Your task to perform on an android device: add a contact Image 0: 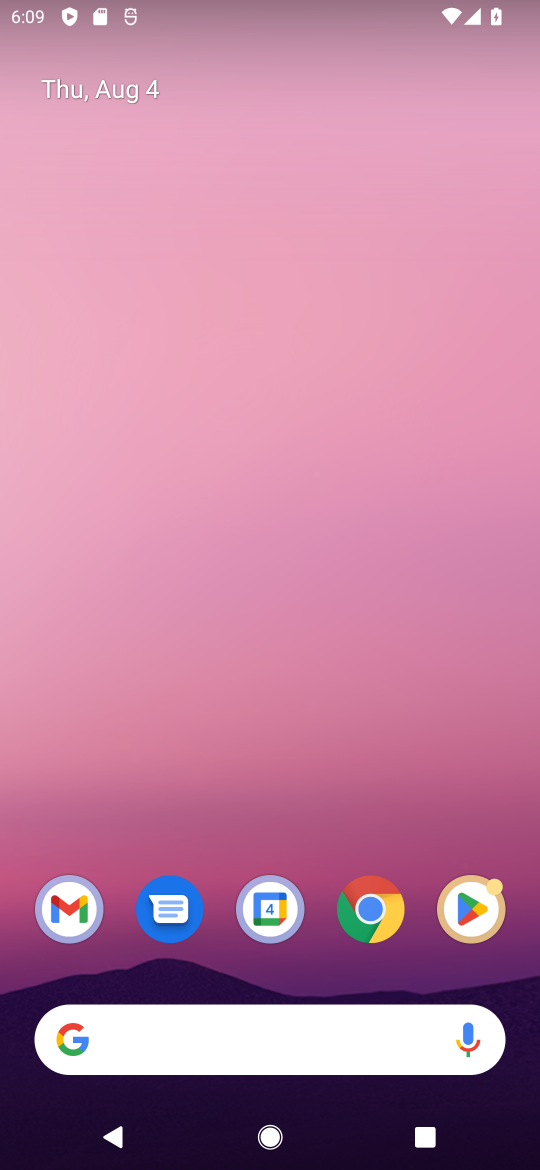
Step 0: drag from (274, 931) to (302, 130)
Your task to perform on an android device: add a contact Image 1: 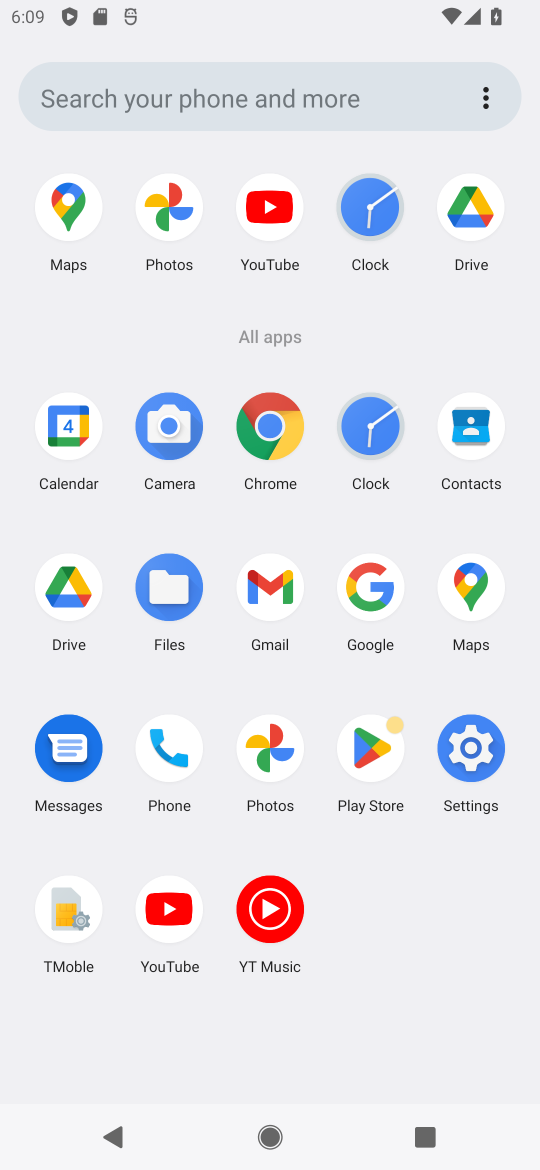
Step 1: click (160, 756)
Your task to perform on an android device: add a contact Image 2: 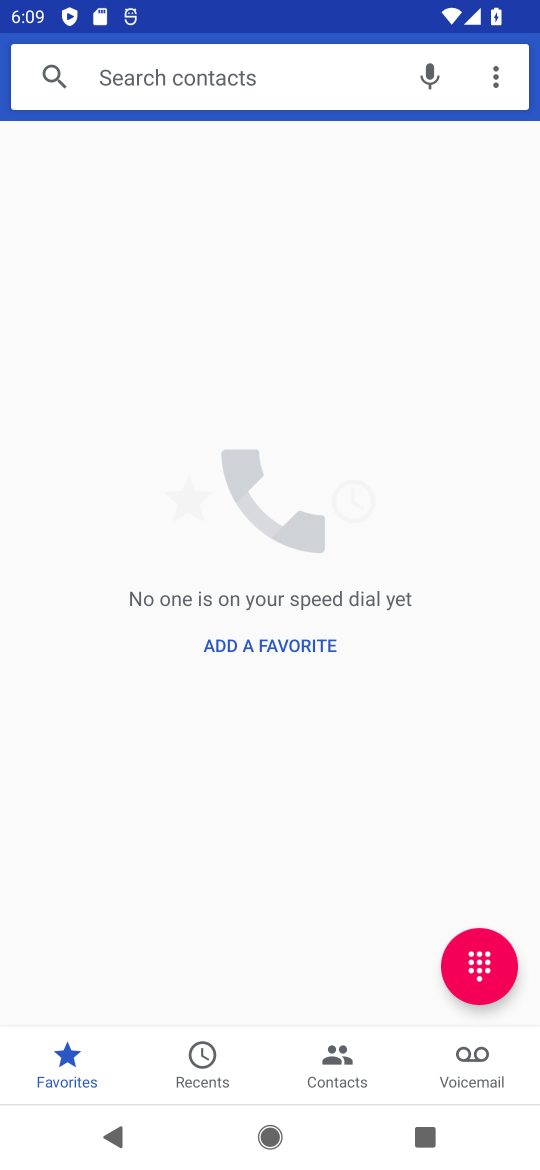
Step 2: click (326, 1063)
Your task to perform on an android device: add a contact Image 3: 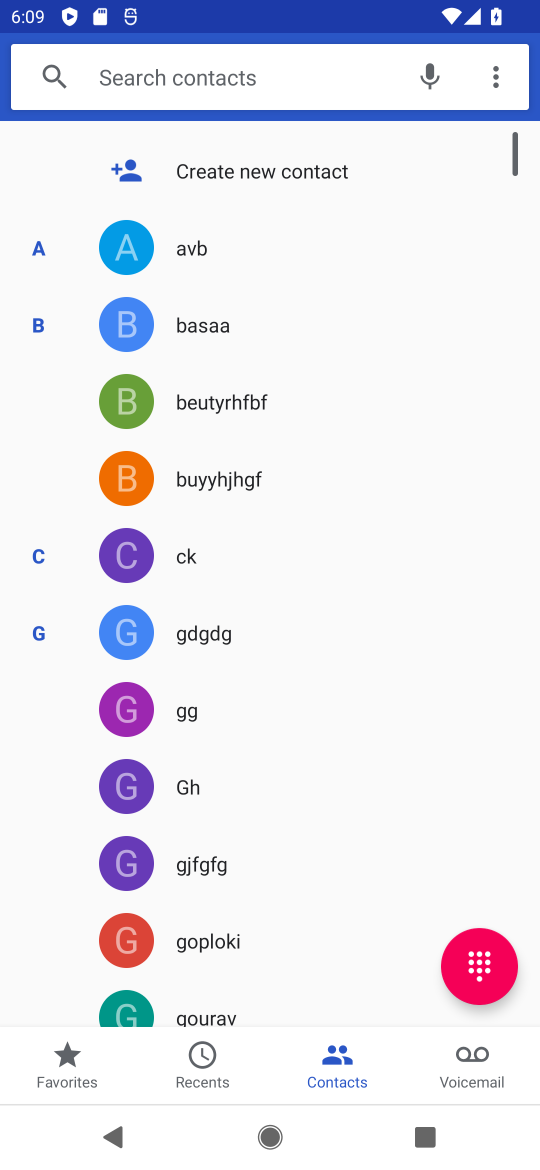
Step 3: click (238, 181)
Your task to perform on an android device: add a contact Image 4: 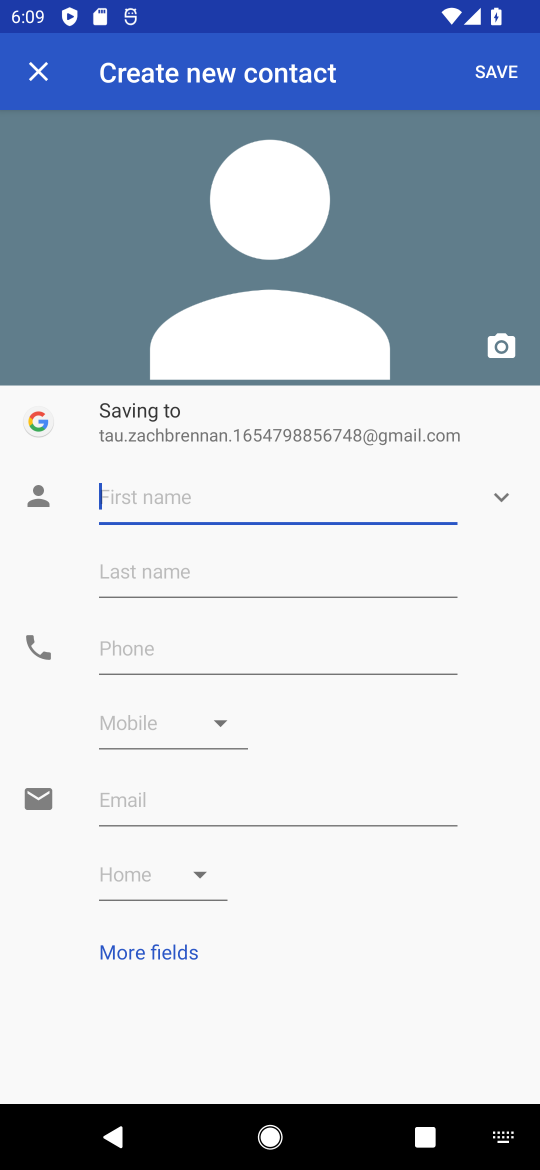
Step 4: type "tyuuuu"
Your task to perform on an android device: add a contact Image 5: 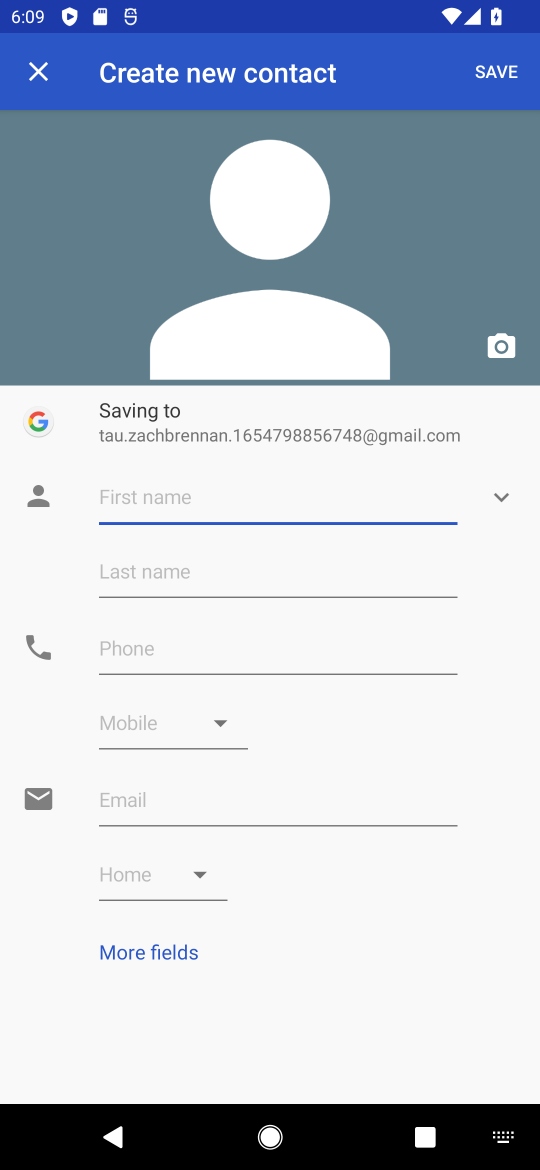
Step 5: click (124, 637)
Your task to perform on an android device: add a contact Image 6: 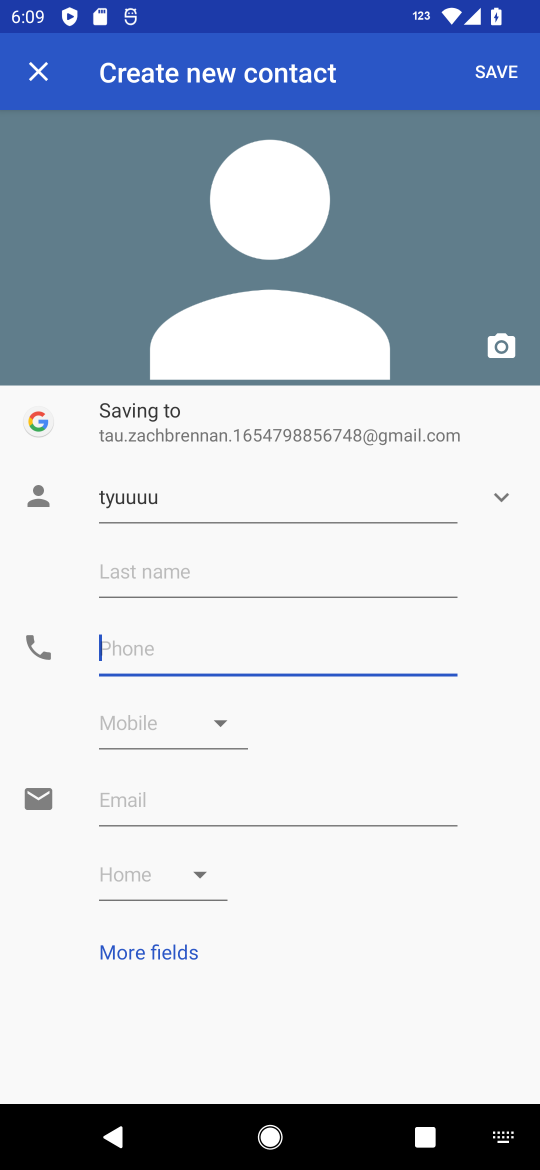
Step 6: type "4567654"
Your task to perform on an android device: add a contact Image 7: 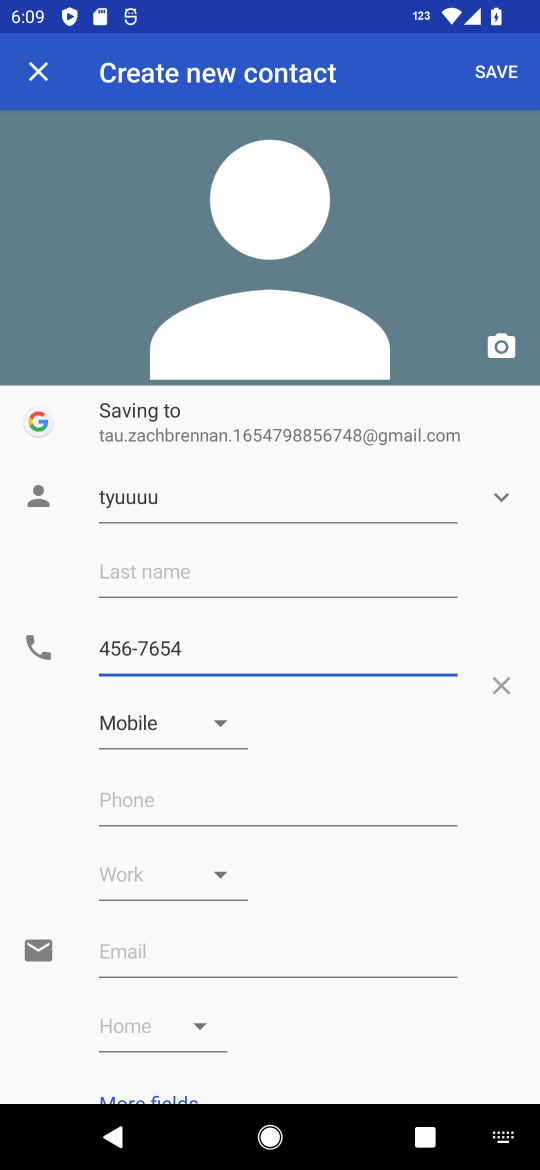
Step 7: click (477, 76)
Your task to perform on an android device: add a contact Image 8: 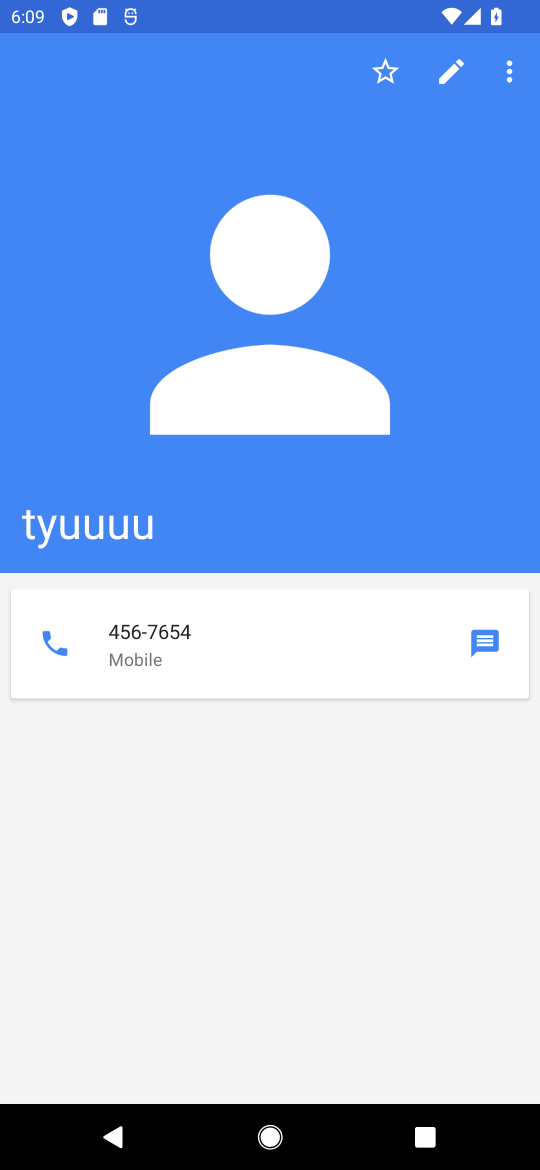
Step 8: task complete